Your task to perform on an android device: Go to eBay Image 0: 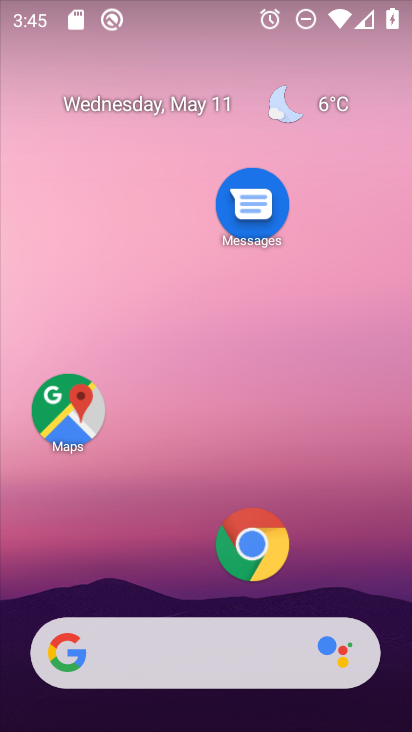
Step 0: click (256, 558)
Your task to perform on an android device: Go to eBay Image 1: 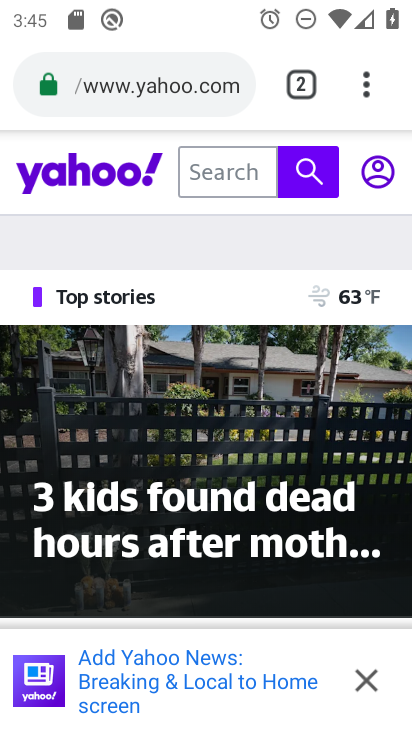
Step 1: click (301, 78)
Your task to perform on an android device: Go to eBay Image 2: 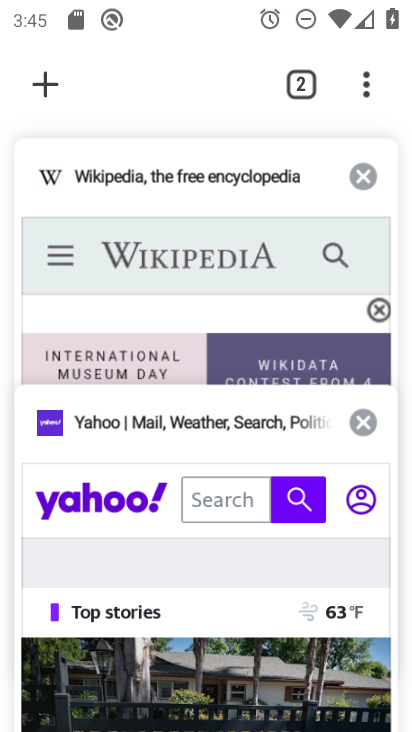
Step 2: click (35, 72)
Your task to perform on an android device: Go to eBay Image 3: 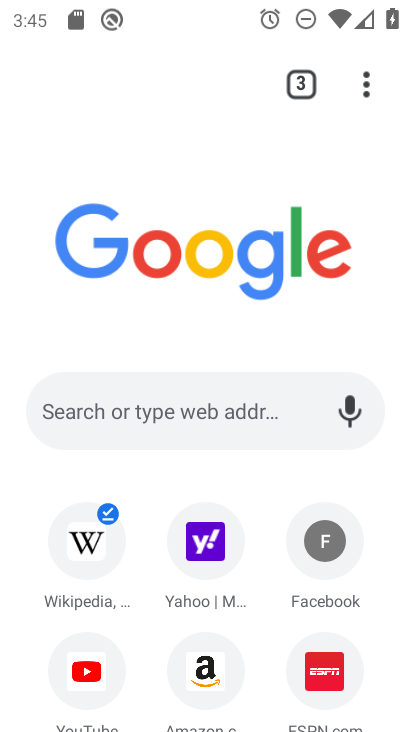
Step 3: click (97, 411)
Your task to perform on an android device: Go to eBay Image 4: 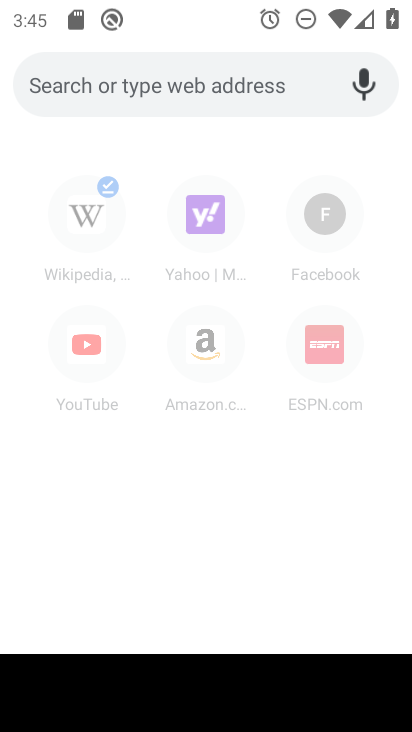
Step 4: click (139, 64)
Your task to perform on an android device: Go to eBay Image 5: 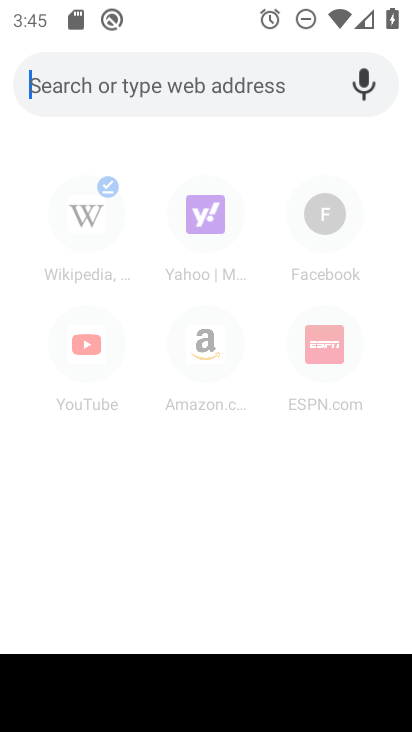
Step 5: type "ebay"
Your task to perform on an android device: Go to eBay Image 6: 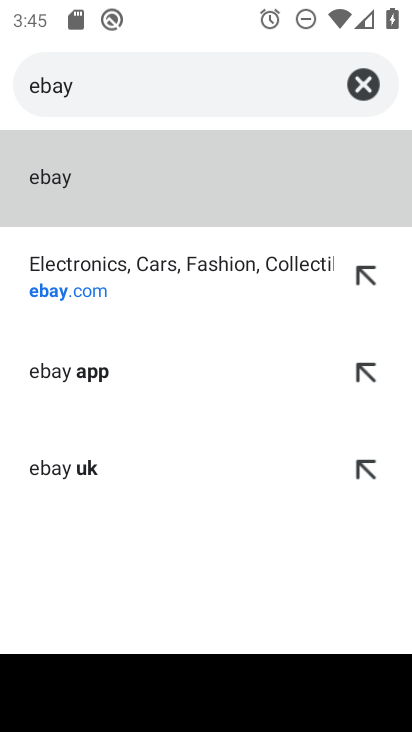
Step 6: click (189, 273)
Your task to perform on an android device: Go to eBay Image 7: 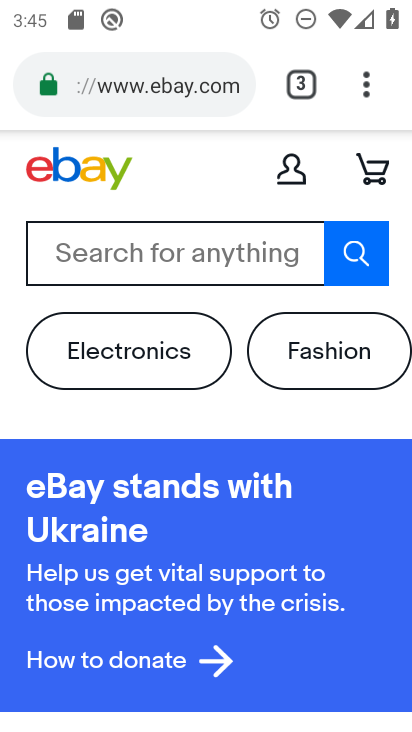
Step 7: task complete